Your task to perform on an android device: Open the calendar and show me this week's events? Image 0: 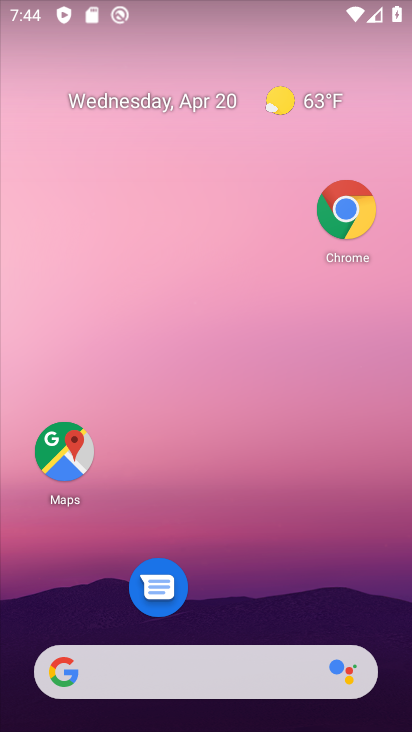
Step 0: click (127, 101)
Your task to perform on an android device: Open the calendar and show me this week's events? Image 1: 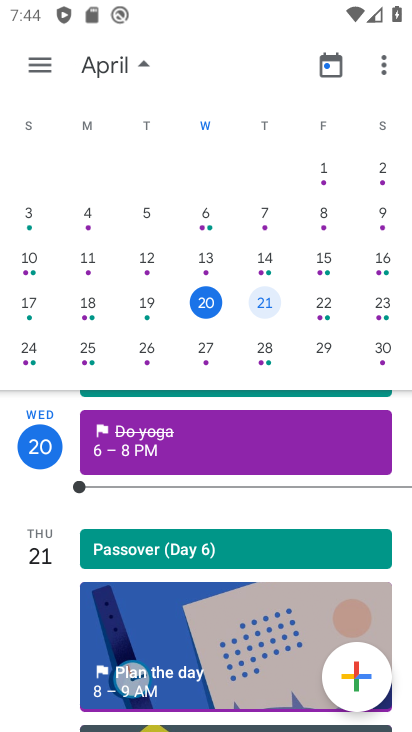
Step 1: drag from (37, 502) to (60, 142)
Your task to perform on an android device: Open the calendar and show me this week's events? Image 2: 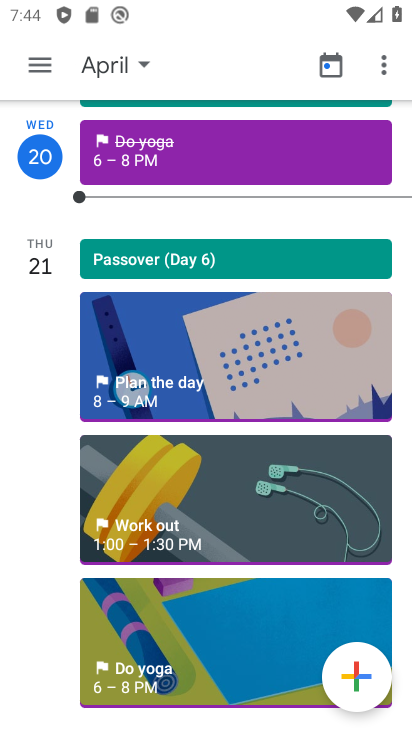
Step 2: drag from (3, 556) to (95, 208)
Your task to perform on an android device: Open the calendar and show me this week's events? Image 3: 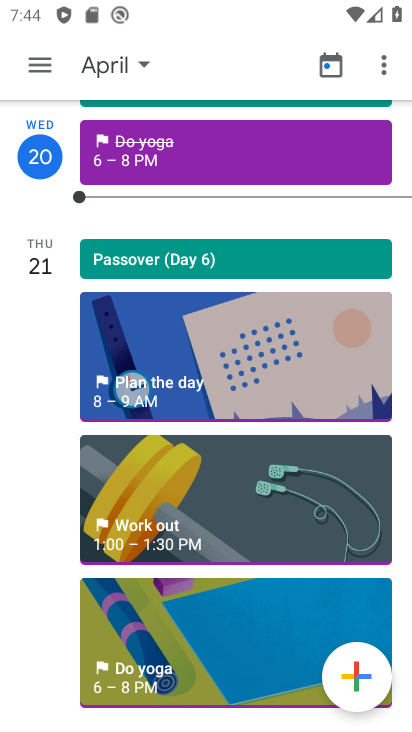
Step 3: drag from (46, 592) to (82, 151)
Your task to perform on an android device: Open the calendar and show me this week's events? Image 4: 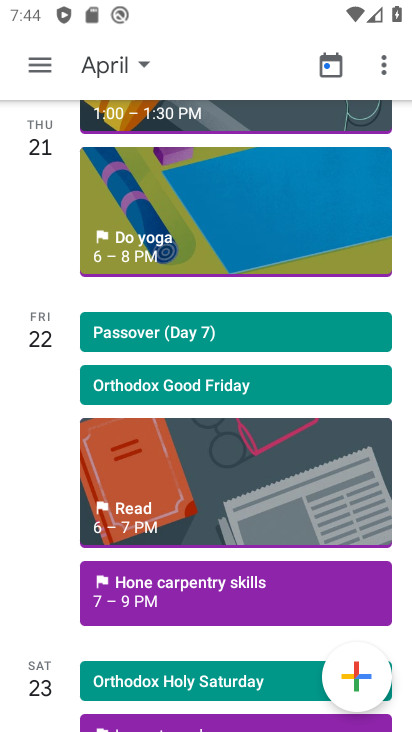
Step 4: click (192, 597)
Your task to perform on an android device: Open the calendar and show me this week's events? Image 5: 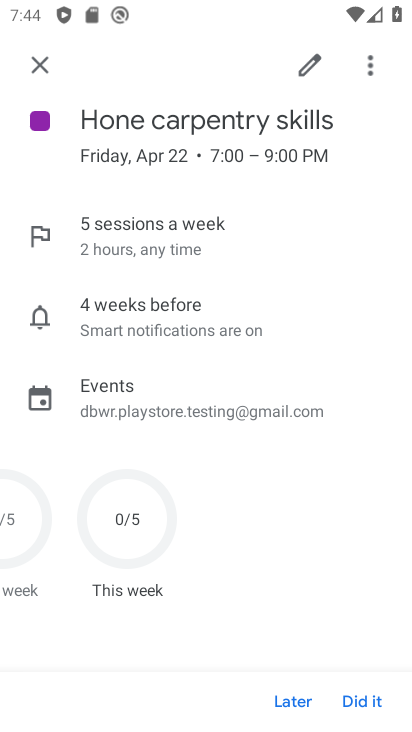
Step 5: task complete